Your task to perform on an android device: What's on my calendar tomorrow? Image 0: 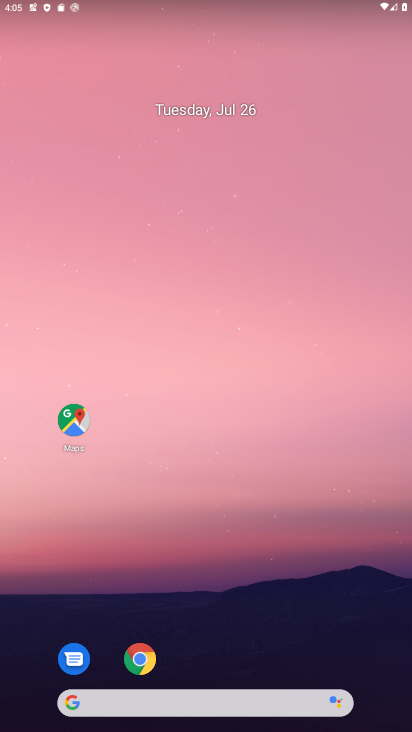
Step 0: drag from (241, 674) to (288, 156)
Your task to perform on an android device: What's on my calendar tomorrow? Image 1: 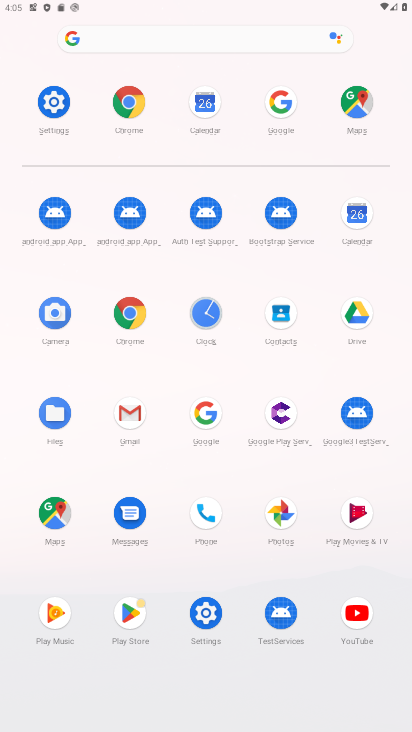
Step 1: click (366, 220)
Your task to perform on an android device: What's on my calendar tomorrow? Image 2: 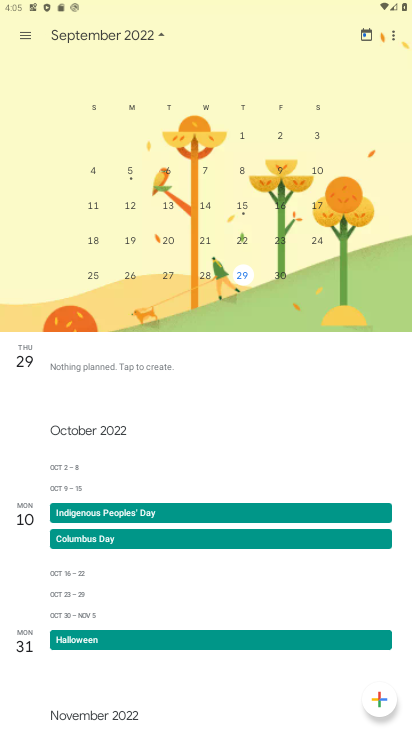
Step 2: click (274, 277)
Your task to perform on an android device: What's on my calendar tomorrow? Image 3: 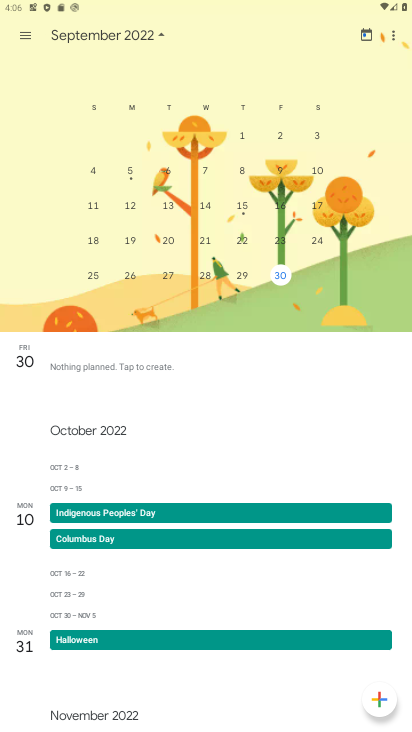
Step 3: task complete